Your task to perform on an android device: turn on showing notifications on the lock screen Image 0: 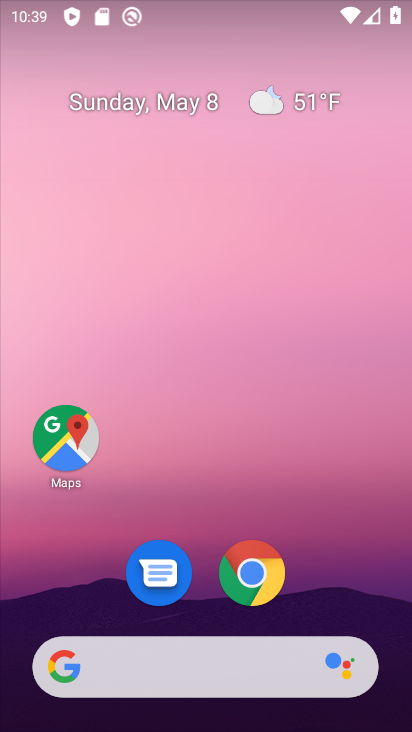
Step 0: drag from (200, 631) to (200, 238)
Your task to perform on an android device: turn on showing notifications on the lock screen Image 1: 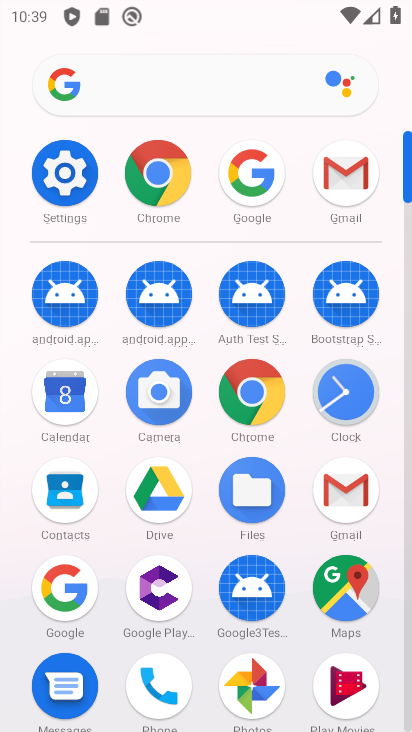
Step 1: click (59, 177)
Your task to perform on an android device: turn on showing notifications on the lock screen Image 2: 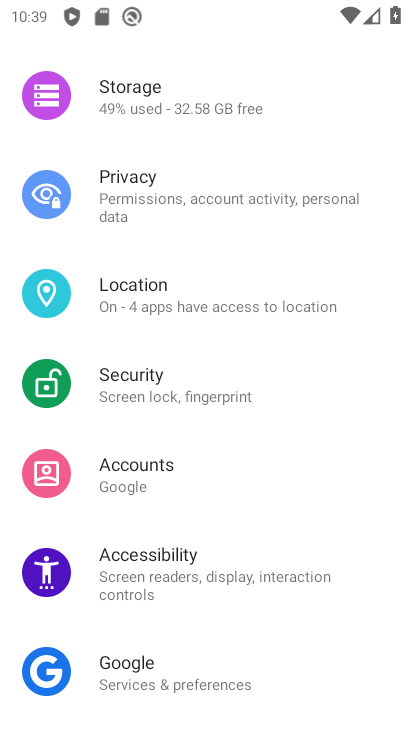
Step 2: drag from (178, 651) to (178, 358)
Your task to perform on an android device: turn on showing notifications on the lock screen Image 3: 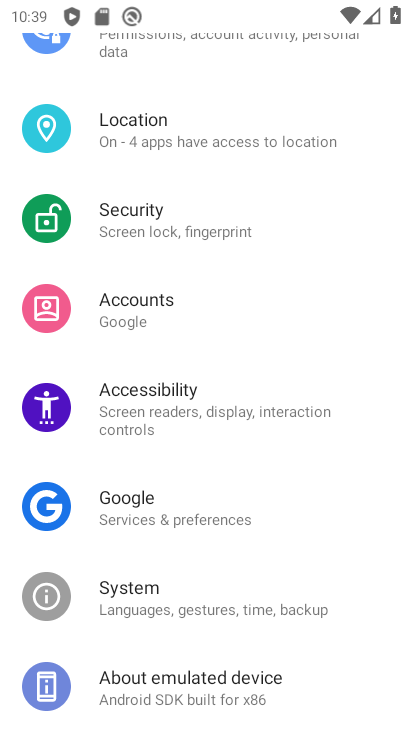
Step 3: drag from (204, 194) to (194, 697)
Your task to perform on an android device: turn on showing notifications on the lock screen Image 4: 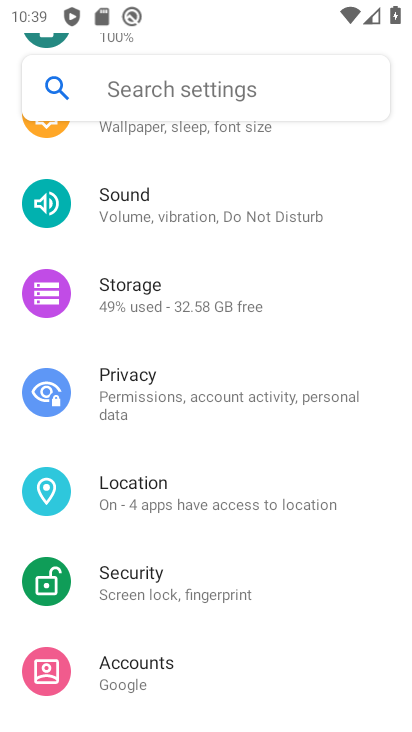
Step 4: drag from (219, 210) to (251, 660)
Your task to perform on an android device: turn on showing notifications on the lock screen Image 5: 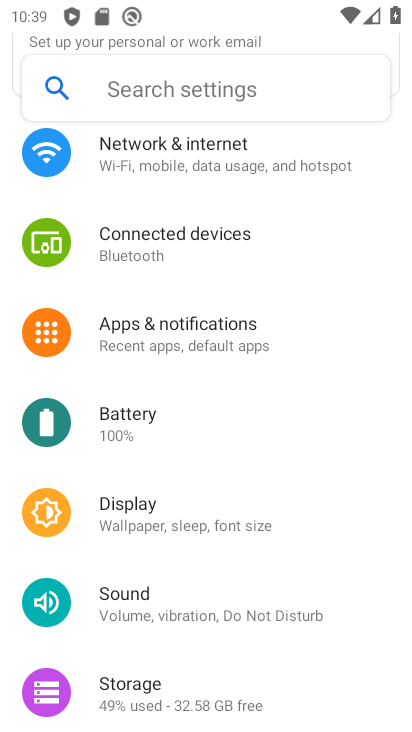
Step 5: drag from (189, 246) to (189, 554)
Your task to perform on an android device: turn on showing notifications on the lock screen Image 6: 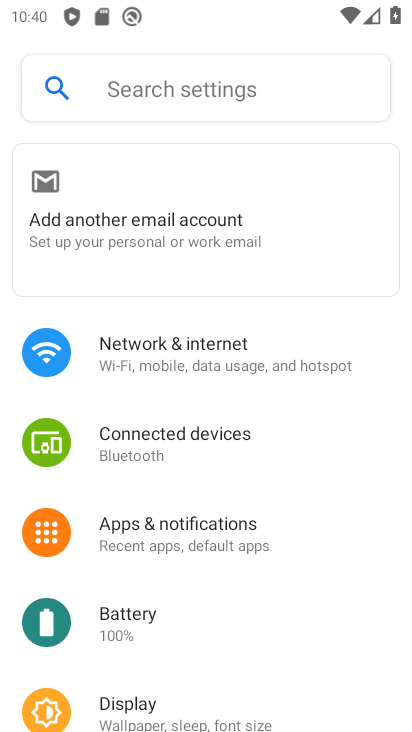
Step 6: click (154, 524)
Your task to perform on an android device: turn on showing notifications on the lock screen Image 7: 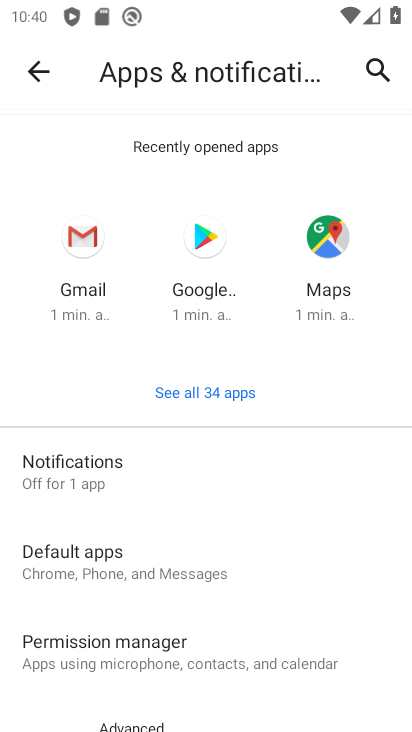
Step 7: click (84, 465)
Your task to perform on an android device: turn on showing notifications on the lock screen Image 8: 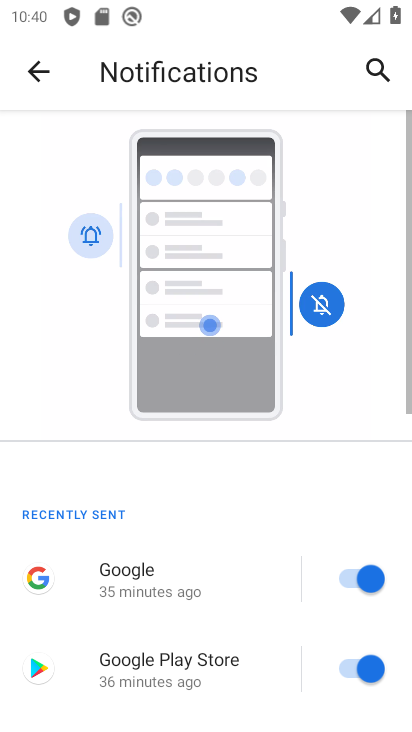
Step 8: drag from (136, 662) to (138, 330)
Your task to perform on an android device: turn on showing notifications on the lock screen Image 9: 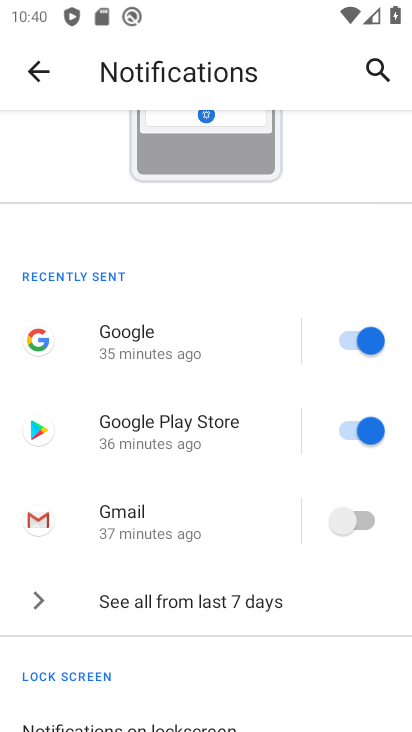
Step 9: drag from (159, 687) to (147, 430)
Your task to perform on an android device: turn on showing notifications on the lock screen Image 10: 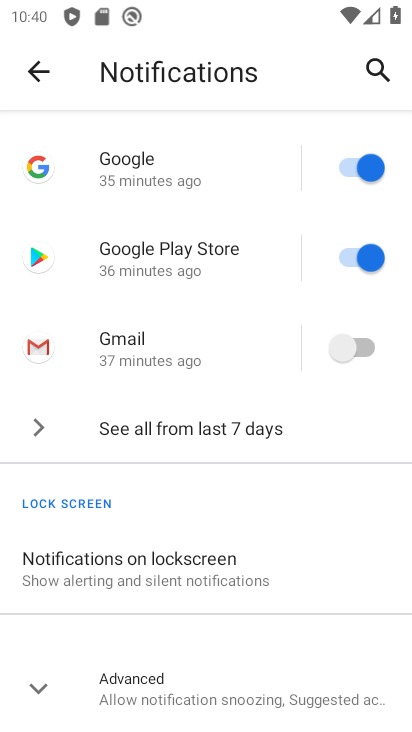
Step 10: click (158, 568)
Your task to perform on an android device: turn on showing notifications on the lock screen Image 11: 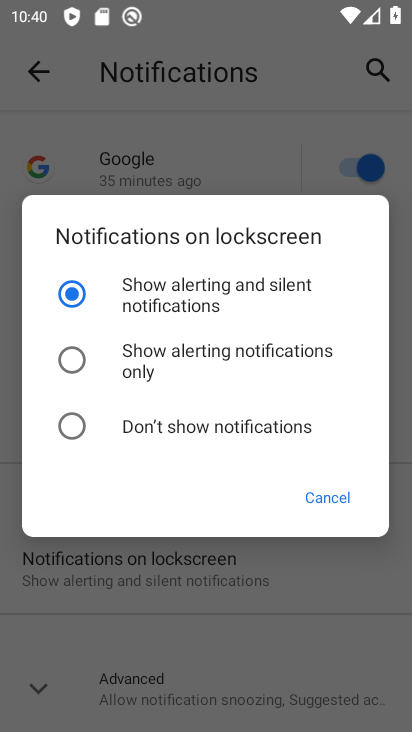
Step 11: task complete